Your task to perform on an android device: turn on the 12-hour format for clock Image 0: 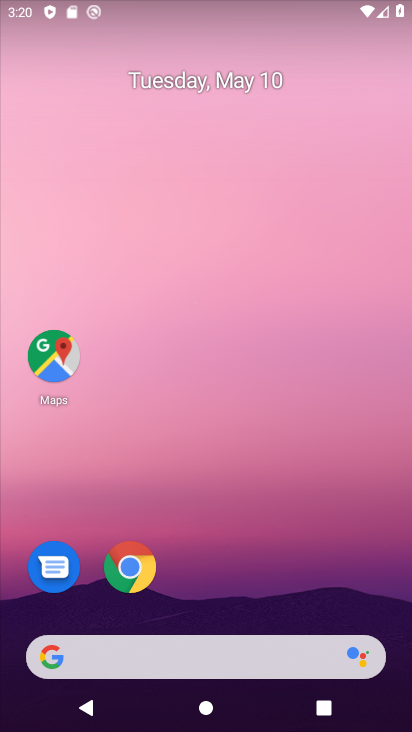
Step 0: drag from (227, 576) to (187, 5)
Your task to perform on an android device: turn on the 12-hour format for clock Image 1: 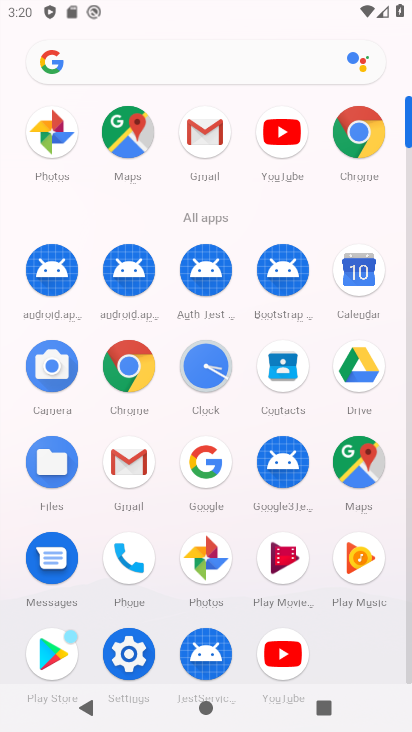
Step 1: click (210, 369)
Your task to perform on an android device: turn on the 12-hour format for clock Image 2: 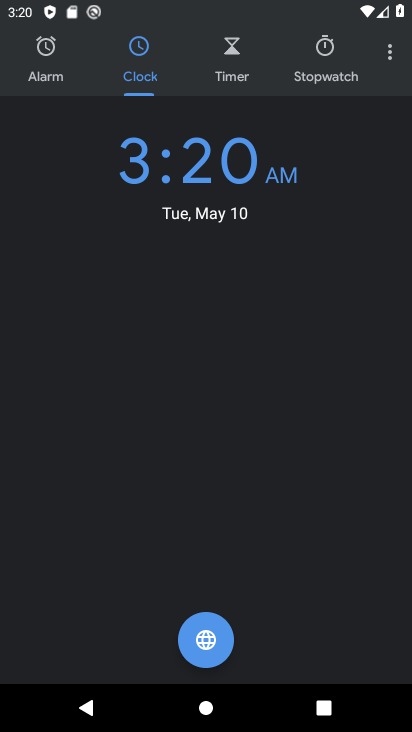
Step 2: click (381, 55)
Your task to perform on an android device: turn on the 12-hour format for clock Image 3: 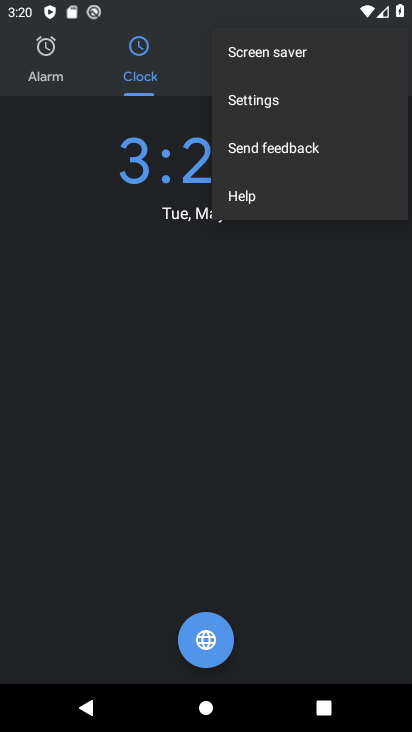
Step 3: click (262, 104)
Your task to perform on an android device: turn on the 12-hour format for clock Image 4: 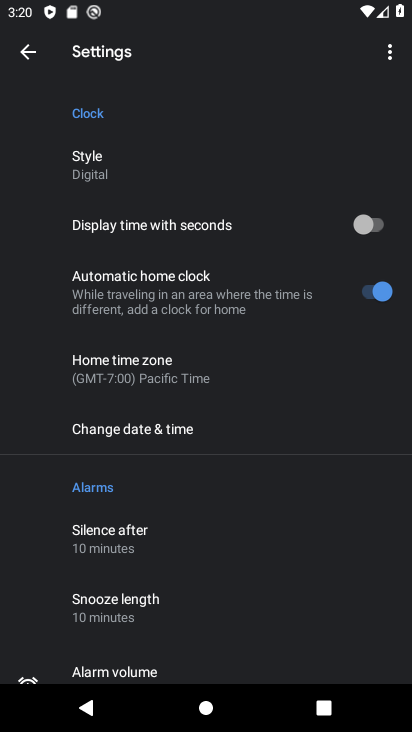
Step 4: drag from (195, 576) to (190, 476)
Your task to perform on an android device: turn on the 12-hour format for clock Image 5: 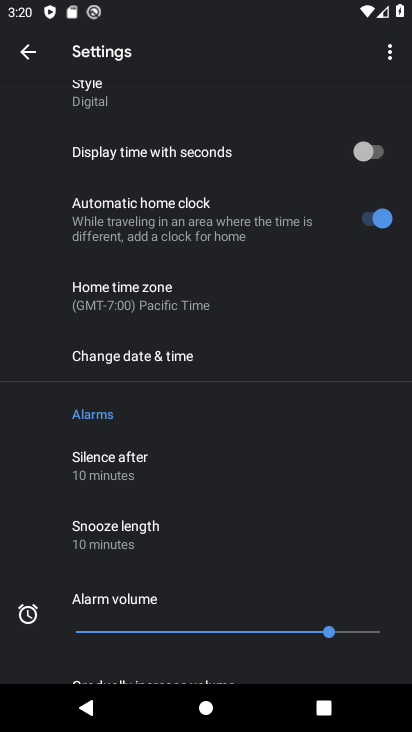
Step 5: click (163, 347)
Your task to perform on an android device: turn on the 12-hour format for clock Image 6: 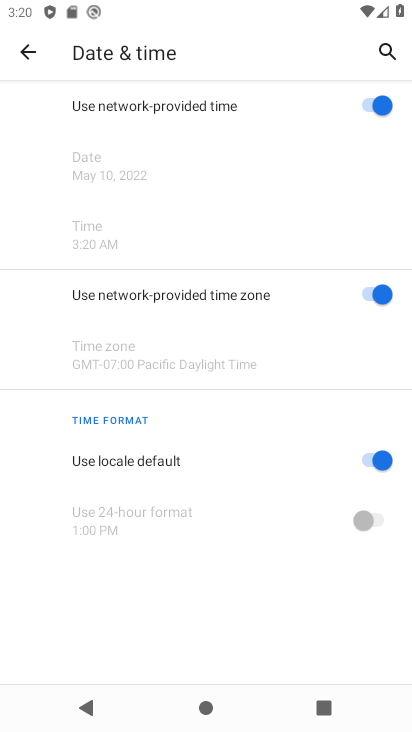
Step 6: click (394, 454)
Your task to perform on an android device: turn on the 12-hour format for clock Image 7: 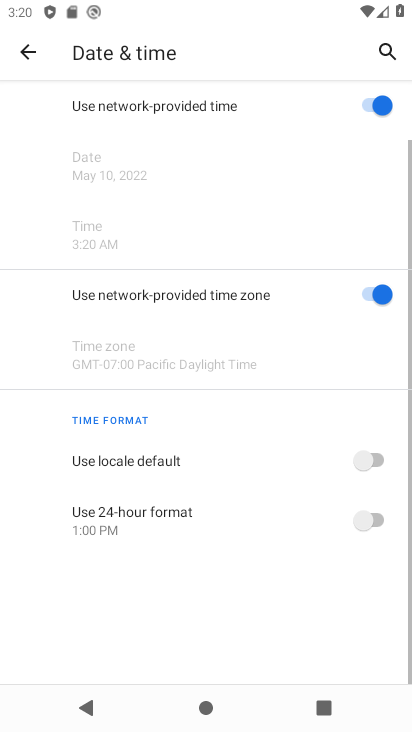
Step 7: click (374, 525)
Your task to perform on an android device: turn on the 12-hour format for clock Image 8: 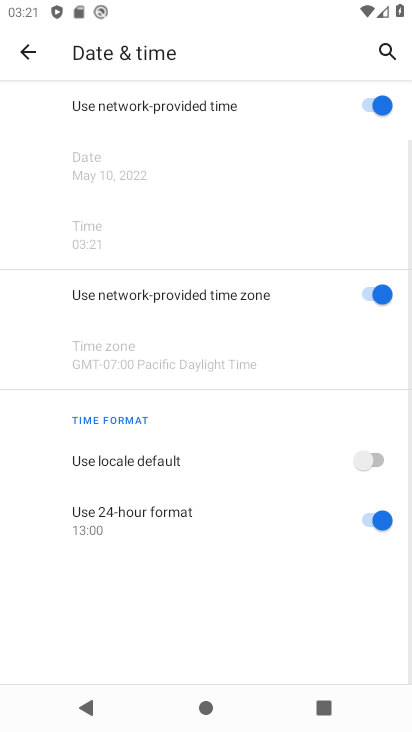
Step 8: task complete